Your task to perform on an android device: Go to display settings Image 0: 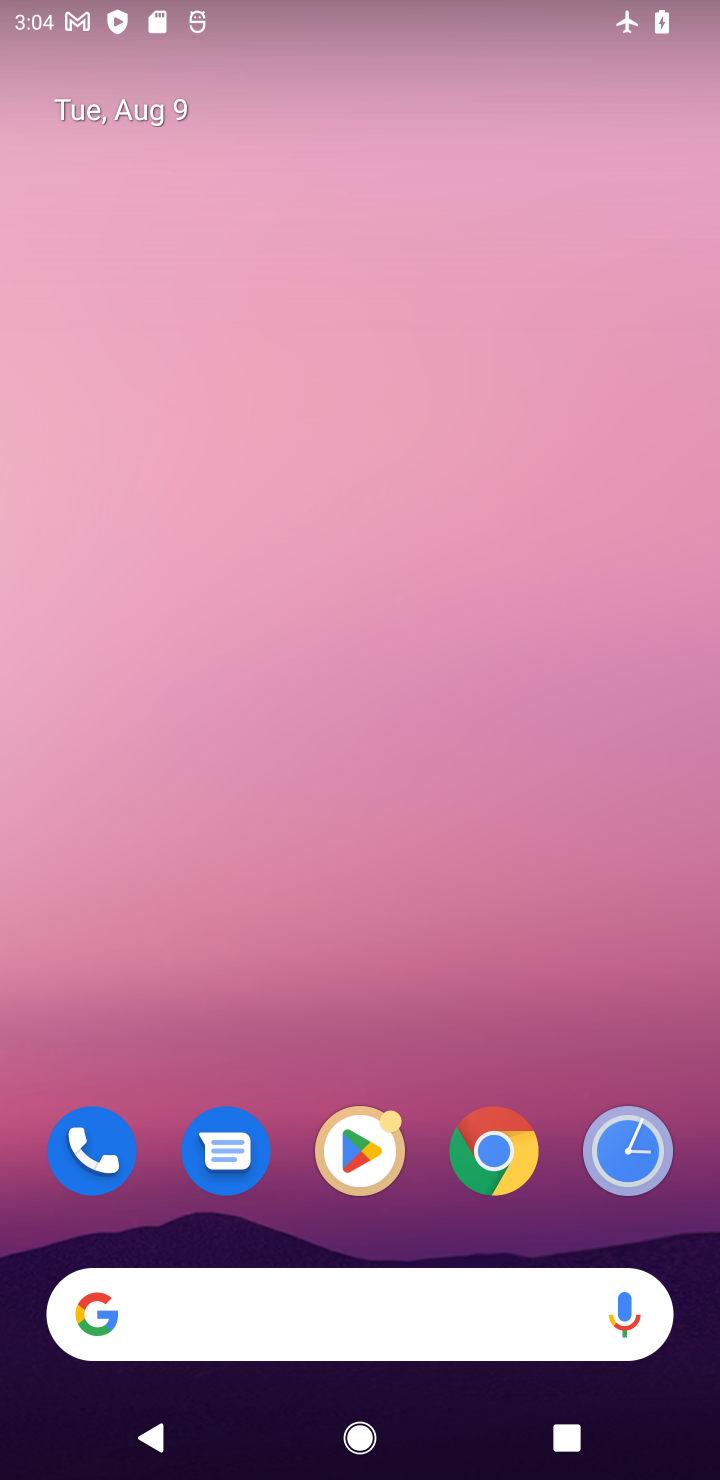
Step 0: drag from (222, 1256) to (325, 154)
Your task to perform on an android device: Go to display settings Image 1: 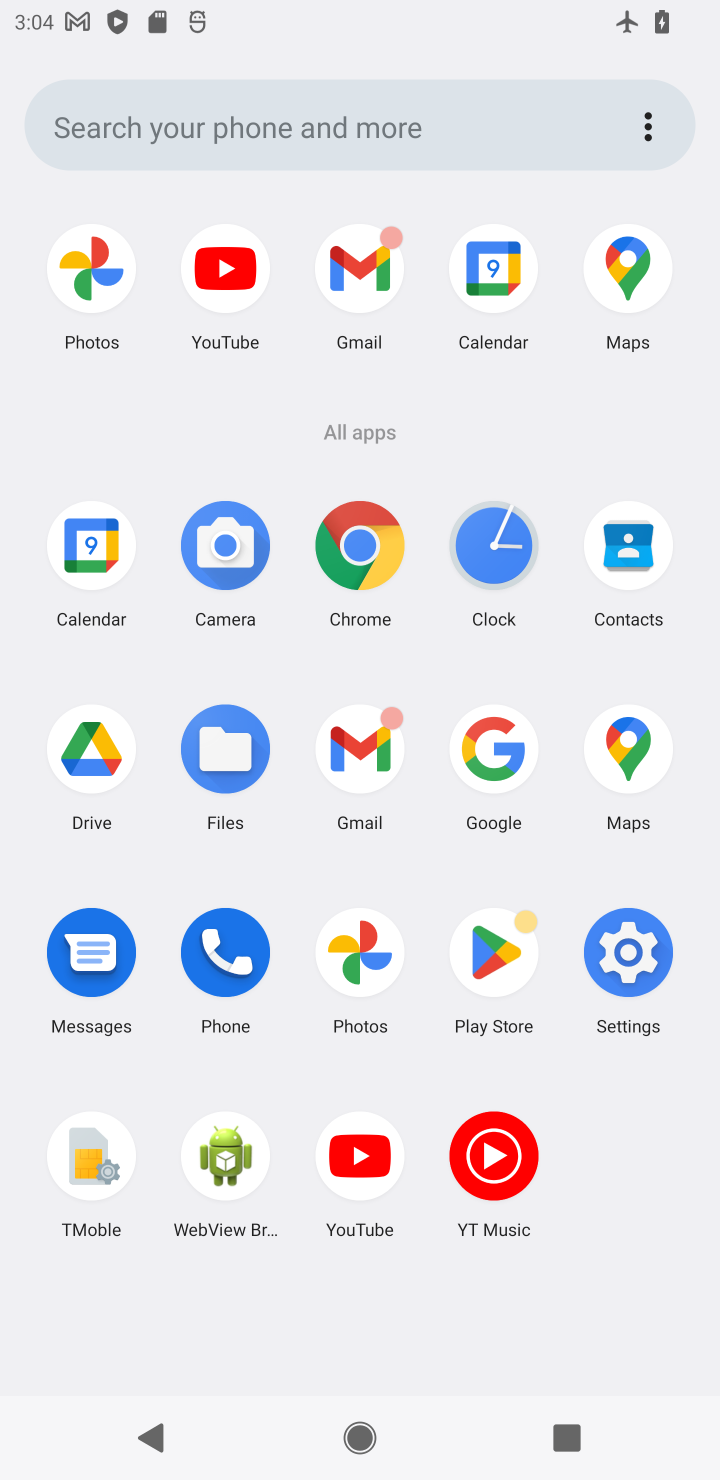
Step 1: click (616, 977)
Your task to perform on an android device: Go to display settings Image 2: 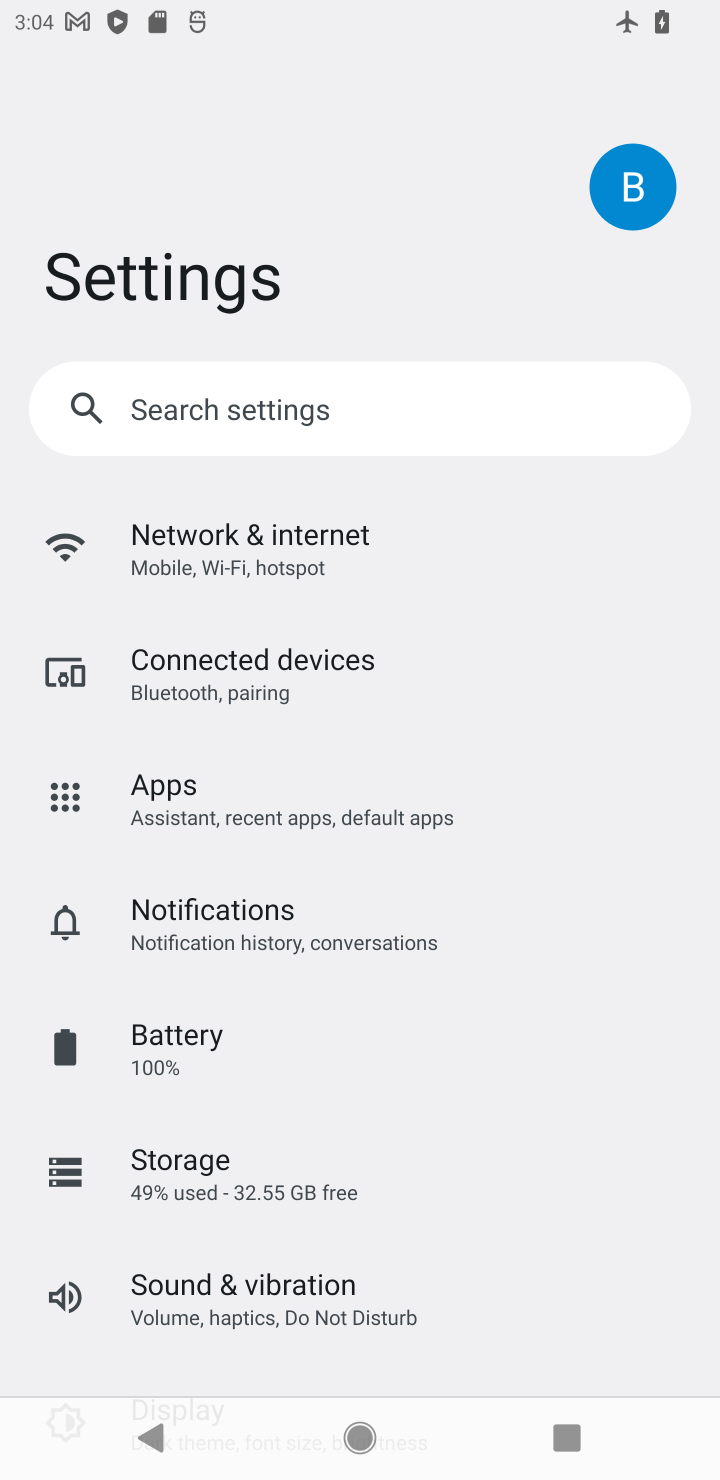
Step 2: drag from (435, 424) to (699, 1020)
Your task to perform on an android device: Go to display settings Image 3: 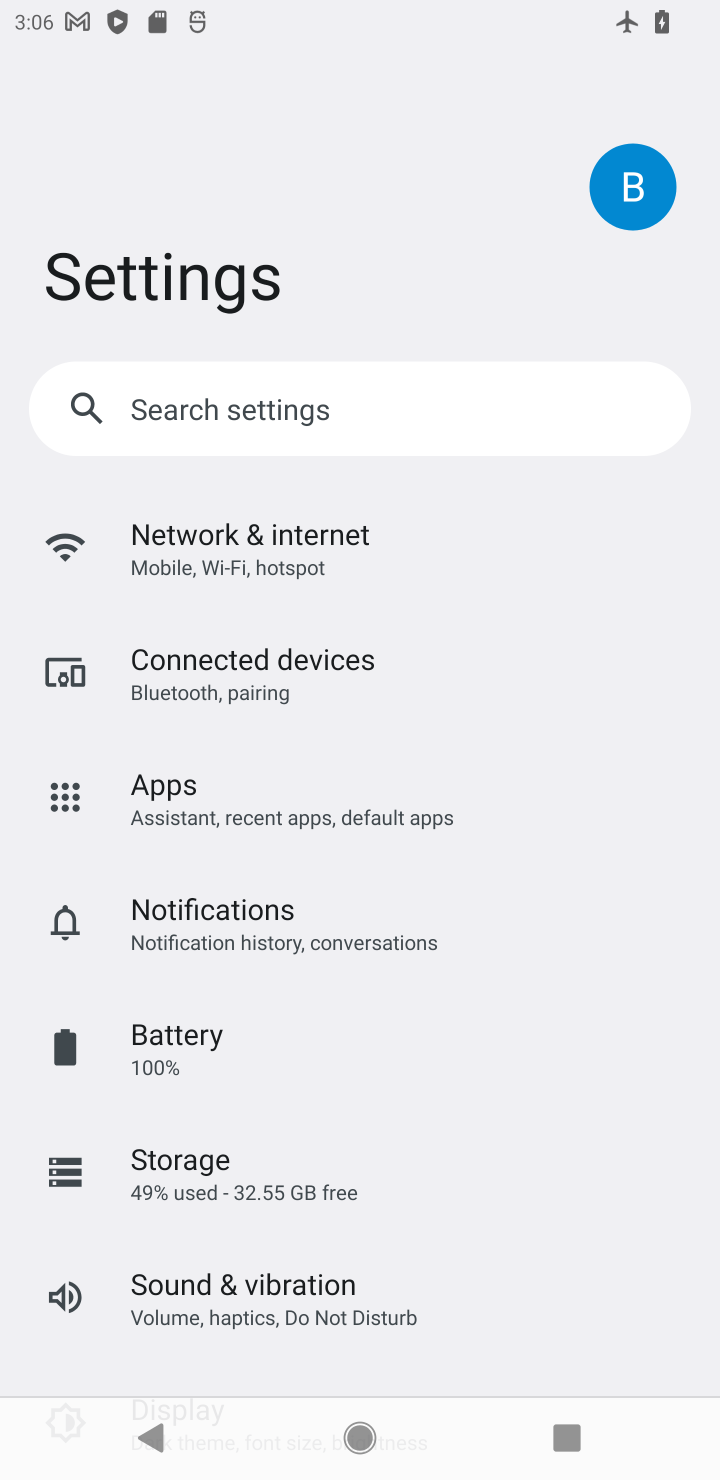
Step 3: drag from (387, 860) to (514, 43)
Your task to perform on an android device: Go to display settings Image 4: 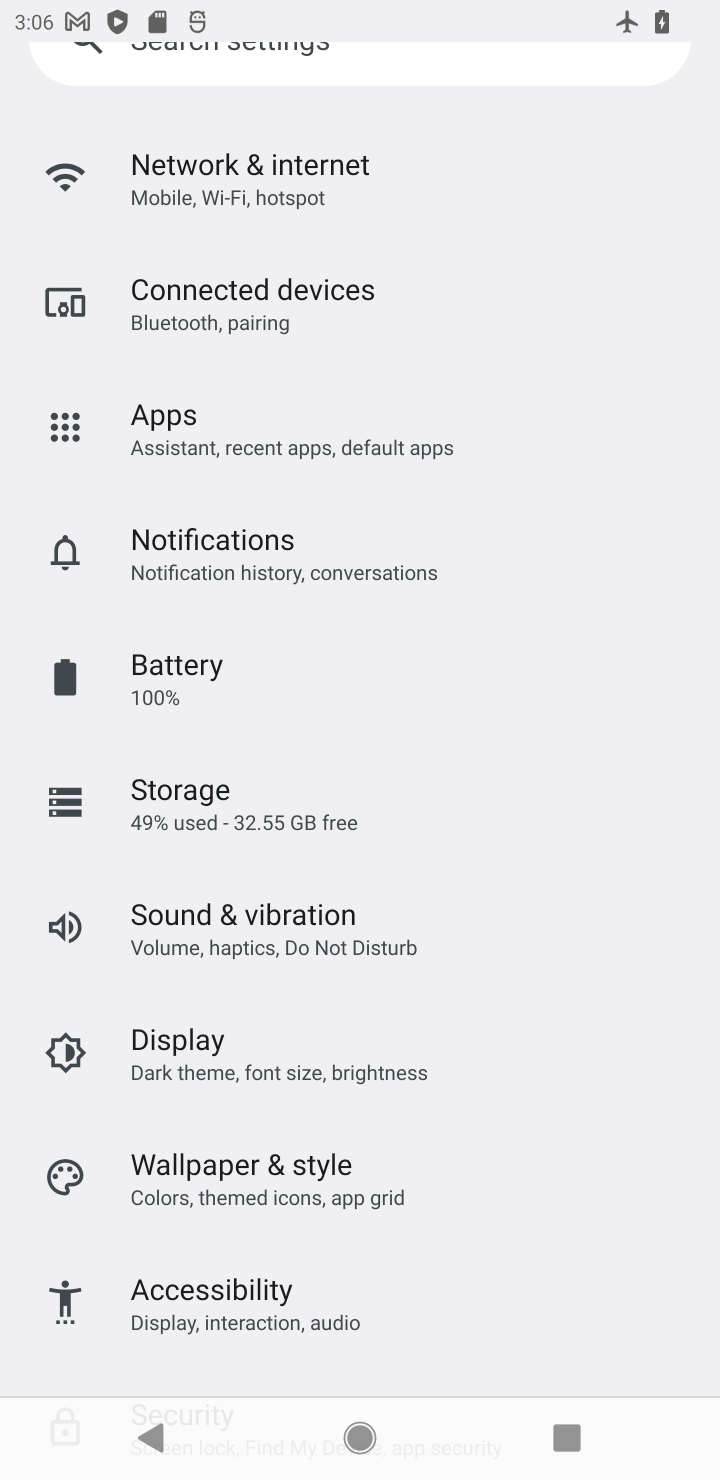
Step 4: click (289, 1064)
Your task to perform on an android device: Go to display settings Image 5: 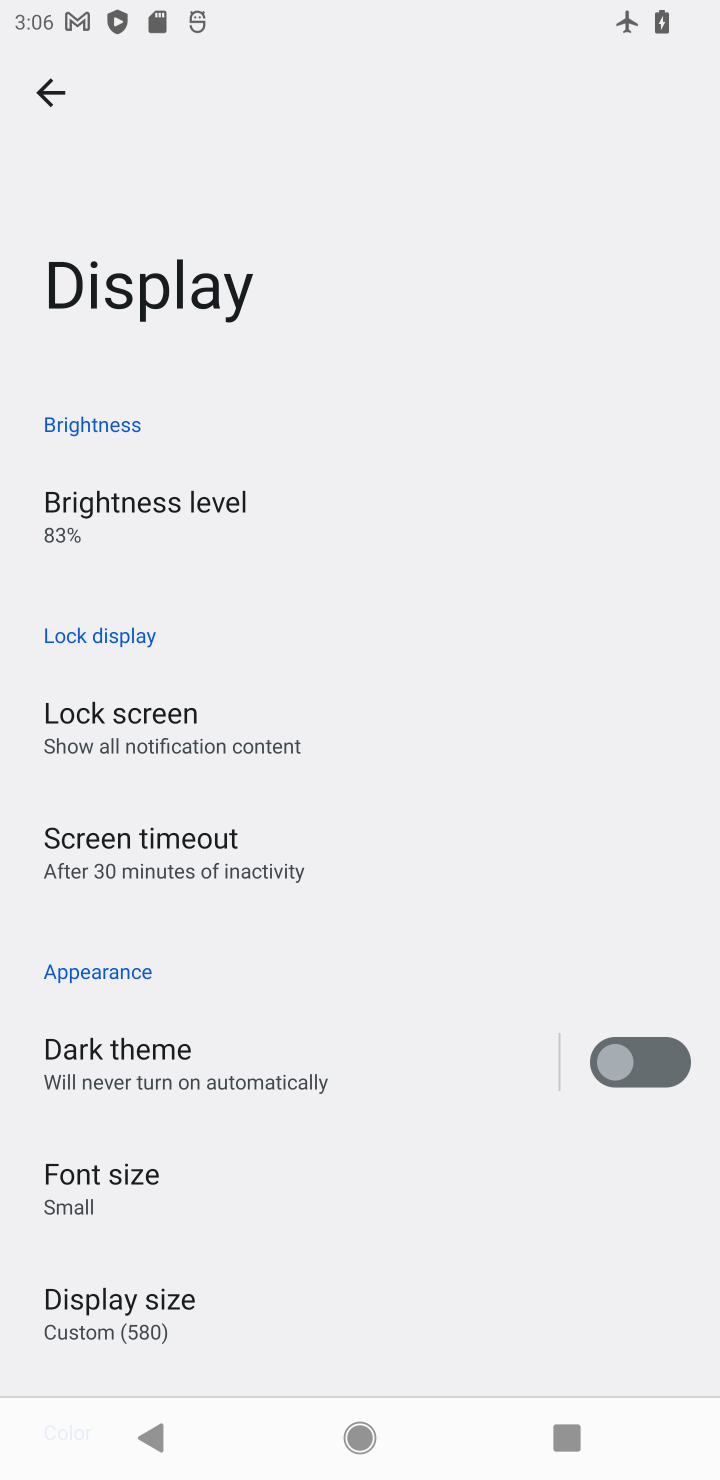
Step 5: task complete